Your task to perform on an android device: turn off smart reply in the gmail app Image 0: 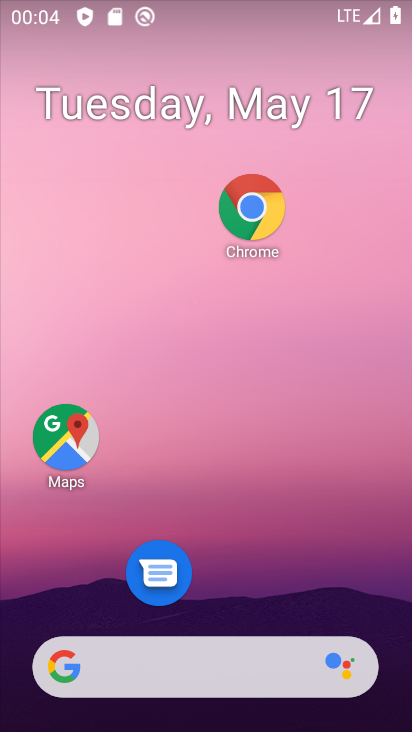
Step 0: drag from (269, 560) to (289, 109)
Your task to perform on an android device: turn off smart reply in the gmail app Image 1: 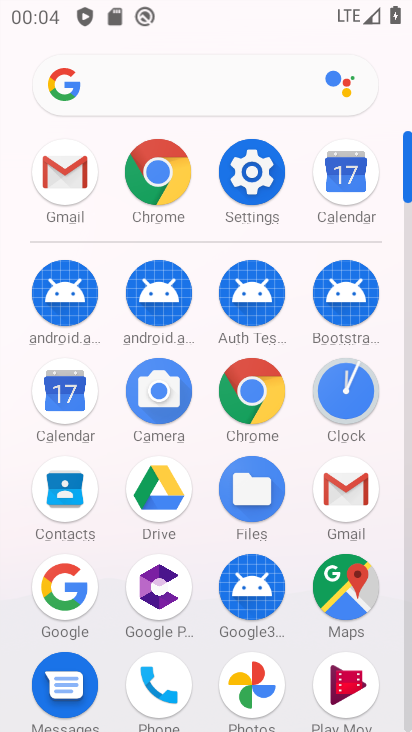
Step 1: click (355, 507)
Your task to perform on an android device: turn off smart reply in the gmail app Image 2: 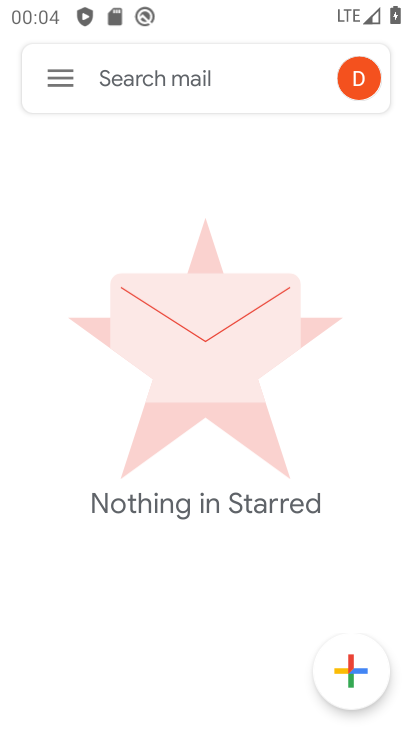
Step 2: click (64, 73)
Your task to perform on an android device: turn off smart reply in the gmail app Image 3: 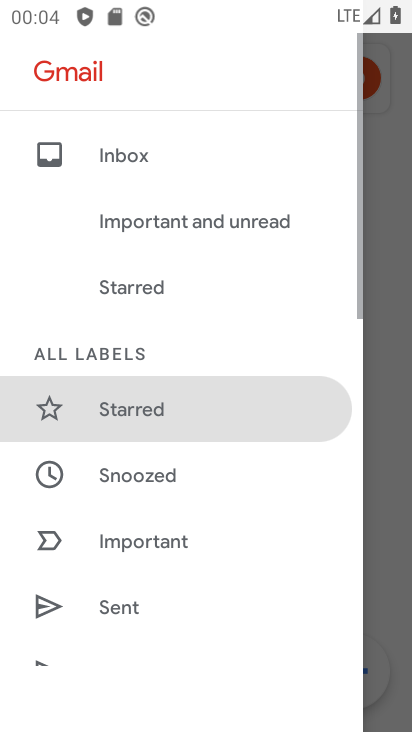
Step 3: drag from (232, 594) to (288, 121)
Your task to perform on an android device: turn off smart reply in the gmail app Image 4: 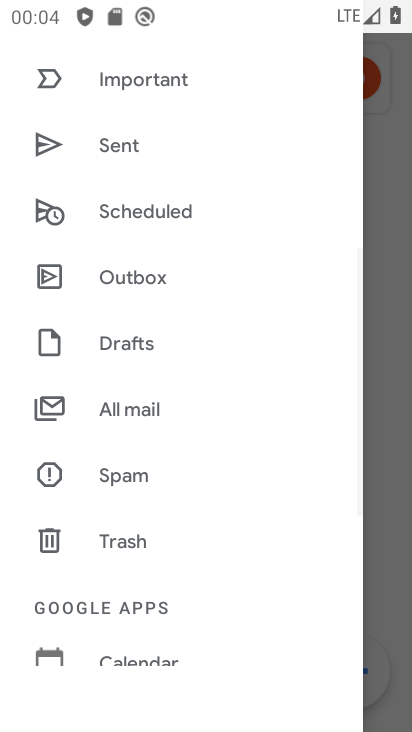
Step 4: drag from (272, 586) to (214, 212)
Your task to perform on an android device: turn off smart reply in the gmail app Image 5: 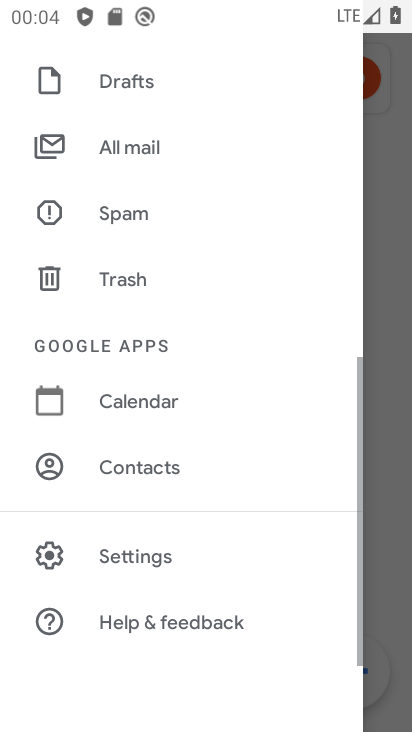
Step 5: click (151, 558)
Your task to perform on an android device: turn off smart reply in the gmail app Image 6: 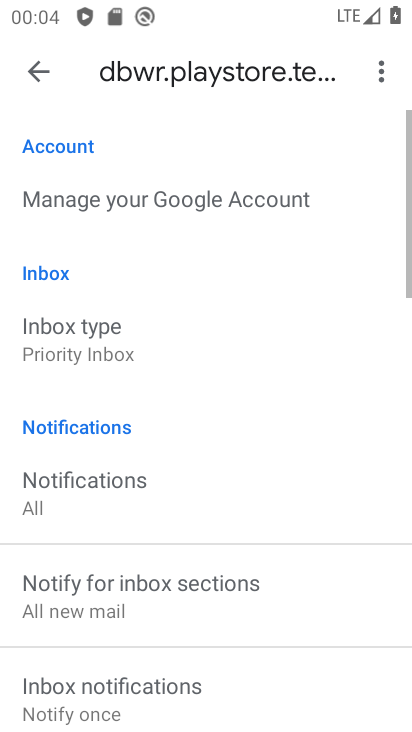
Step 6: drag from (192, 654) to (190, 164)
Your task to perform on an android device: turn off smart reply in the gmail app Image 7: 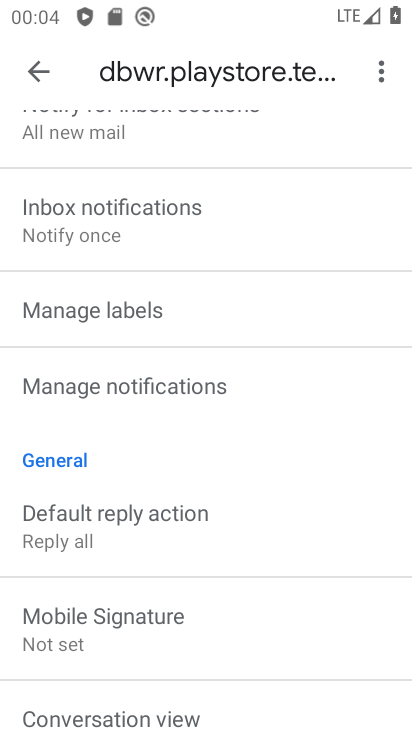
Step 7: drag from (149, 624) to (206, 196)
Your task to perform on an android device: turn off smart reply in the gmail app Image 8: 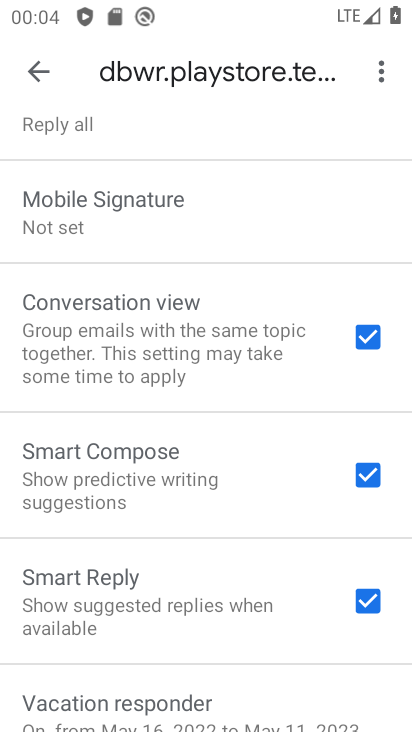
Step 8: click (372, 607)
Your task to perform on an android device: turn off smart reply in the gmail app Image 9: 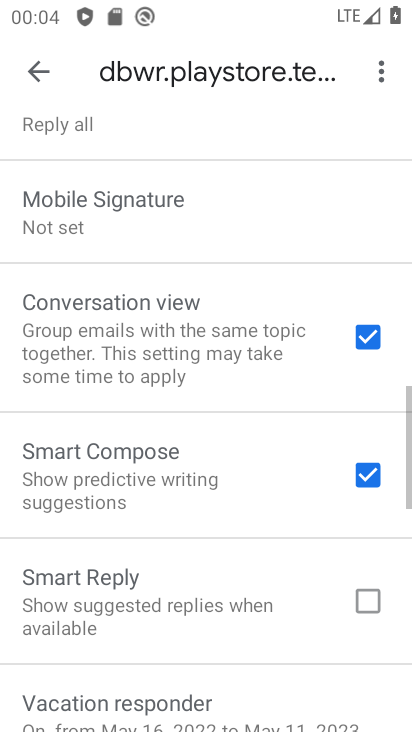
Step 9: task complete